Your task to perform on an android device: manage bookmarks in the chrome app Image 0: 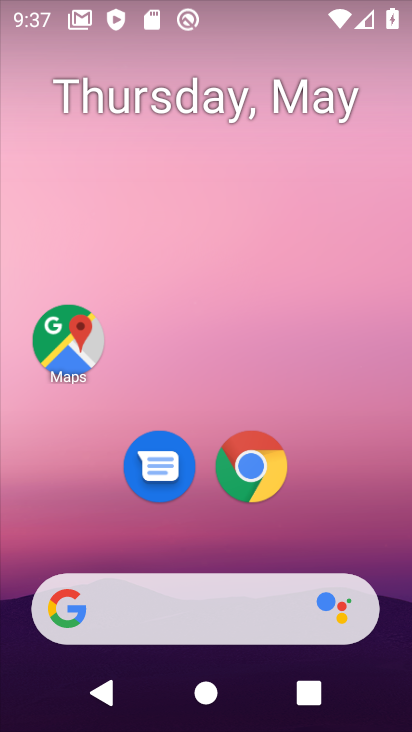
Step 0: click (256, 456)
Your task to perform on an android device: manage bookmarks in the chrome app Image 1: 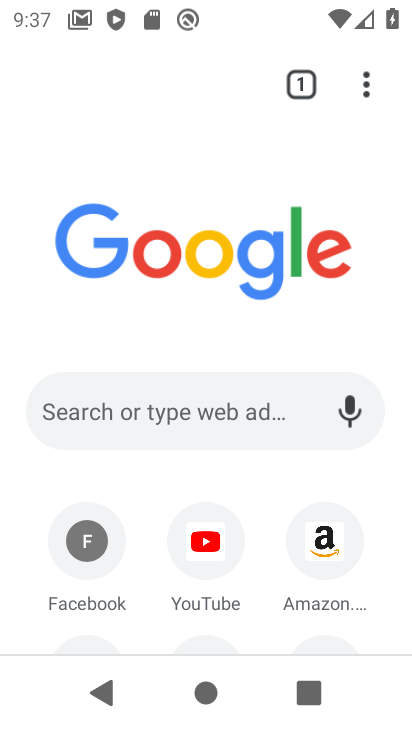
Step 1: drag from (370, 69) to (181, 318)
Your task to perform on an android device: manage bookmarks in the chrome app Image 2: 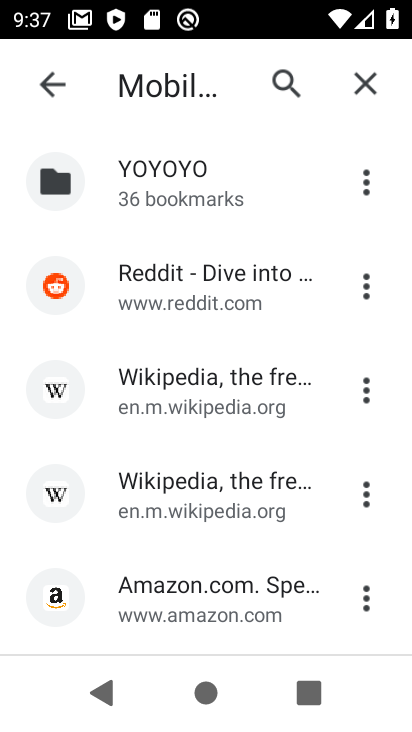
Step 2: click (366, 400)
Your task to perform on an android device: manage bookmarks in the chrome app Image 3: 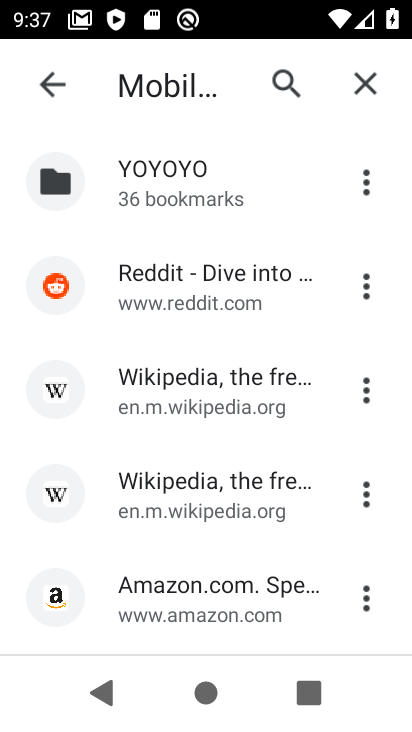
Step 3: click (369, 384)
Your task to perform on an android device: manage bookmarks in the chrome app Image 4: 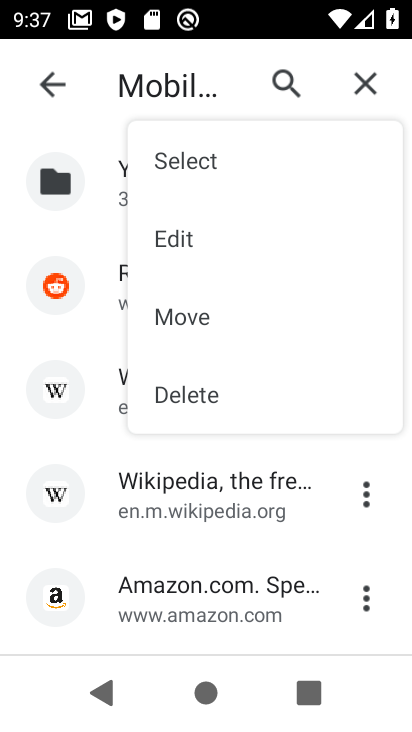
Step 4: click (165, 397)
Your task to perform on an android device: manage bookmarks in the chrome app Image 5: 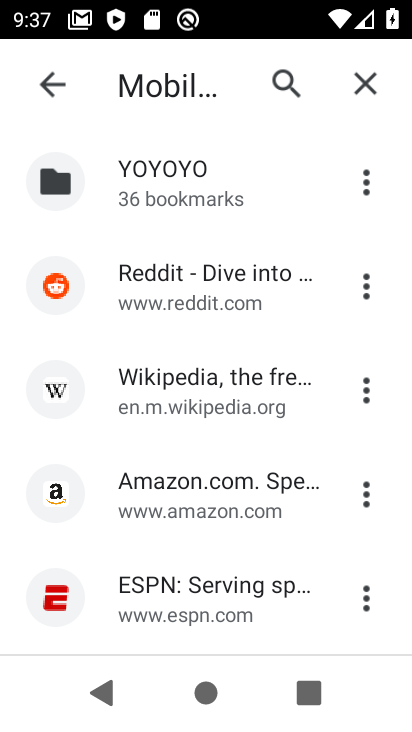
Step 5: task complete